Your task to perform on an android device: turn off notifications in google photos Image 0: 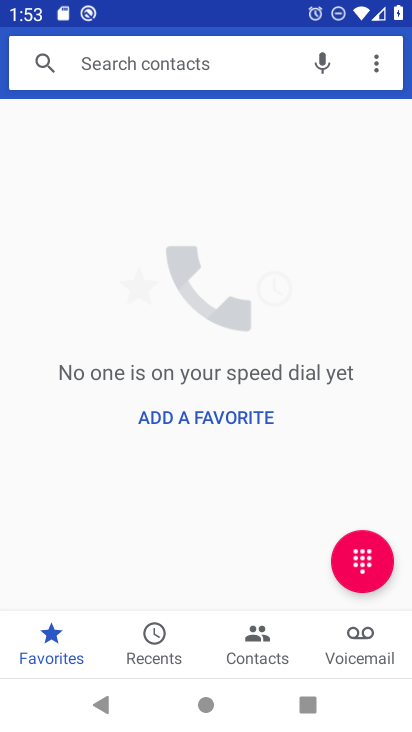
Step 0: press home button
Your task to perform on an android device: turn off notifications in google photos Image 1: 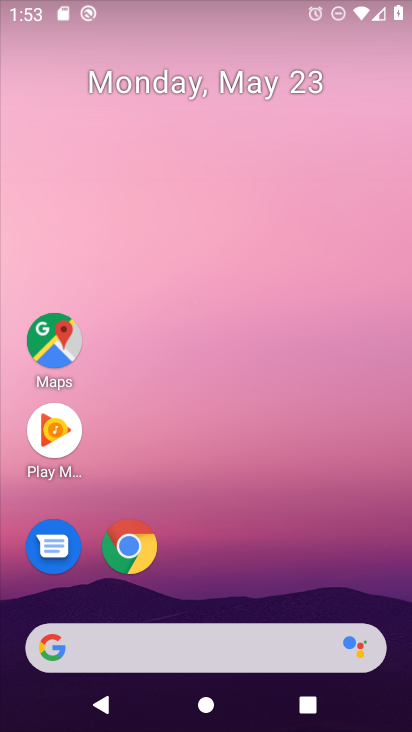
Step 1: drag from (245, 601) to (265, 45)
Your task to perform on an android device: turn off notifications in google photos Image 2: 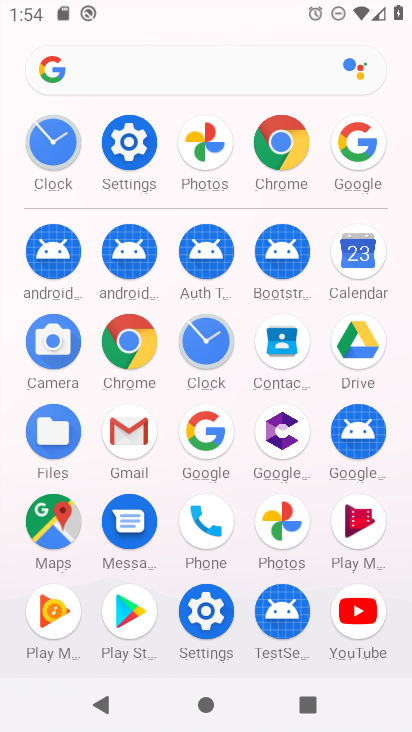
Step 2: click (293, 542)
Your task to perform on an android device: turn off notifications in google photos Image 3: 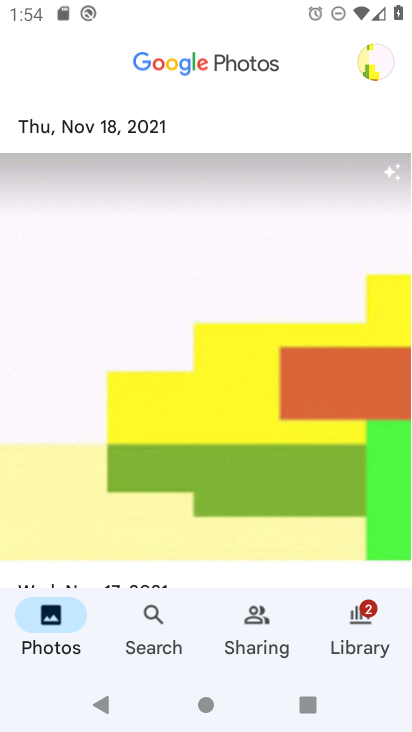
Step 3: click (382, 60)
Your task to perform on an android device: turn off notifications in google photos Image 4: 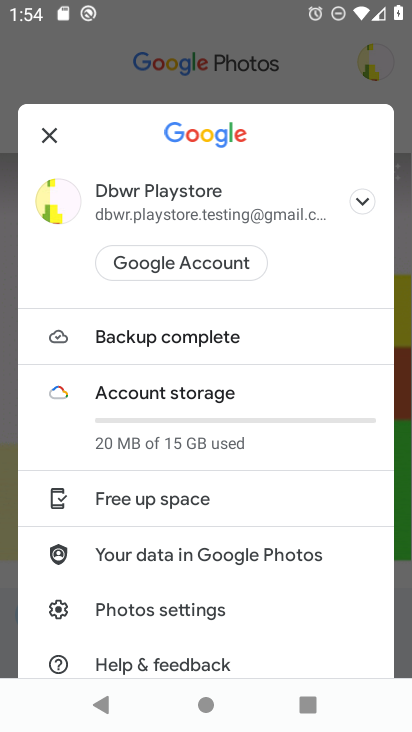
Step 4: click (169, 618)
Your task to perform on an android device: turn off notifications in google photos Image 5: 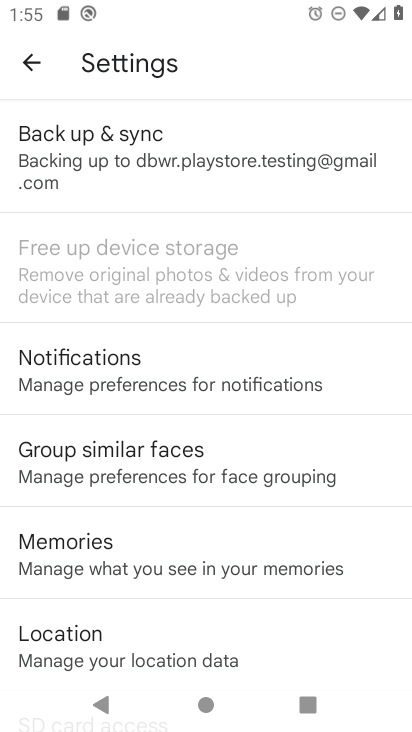
Step 5: click (168, 386)
Your task to perform on an android device: turn off notifications in google photos Image 6: 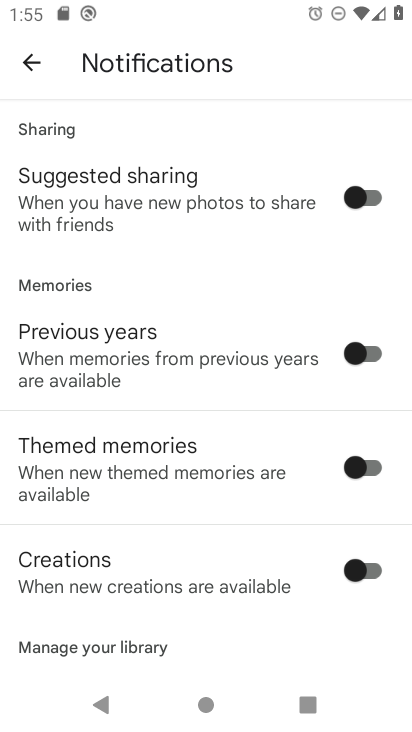
Step 6: drag from (212, 480) to (205, 32)
Your task to perform on an android device: turn off notifications in google photos Image 7: 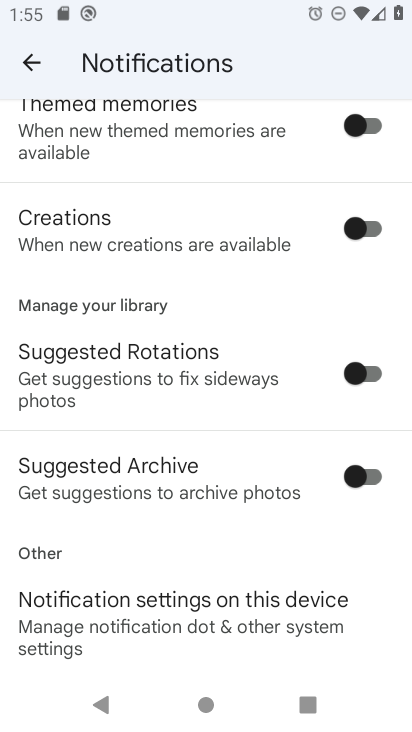
Step 7: drag from (185, 572) to (208, 398)
Your task to perform on an android device: turn off notifications in google photos Image 8: 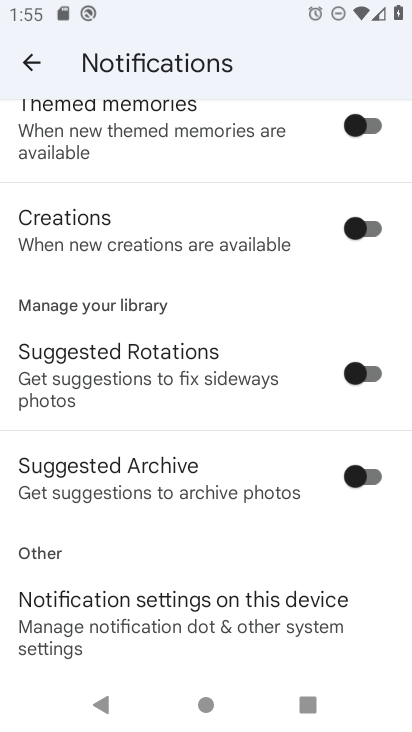
Step 8: click (299, 587)
Your task to perform on an android device: turn off notifications in google photos Image 9: 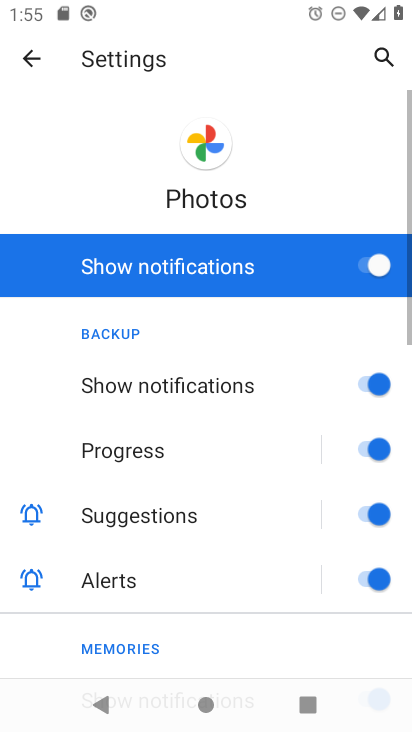
Step 9: click (366, 254)
Your task to perform on an android device: turn off notifications in google photos Image 10: 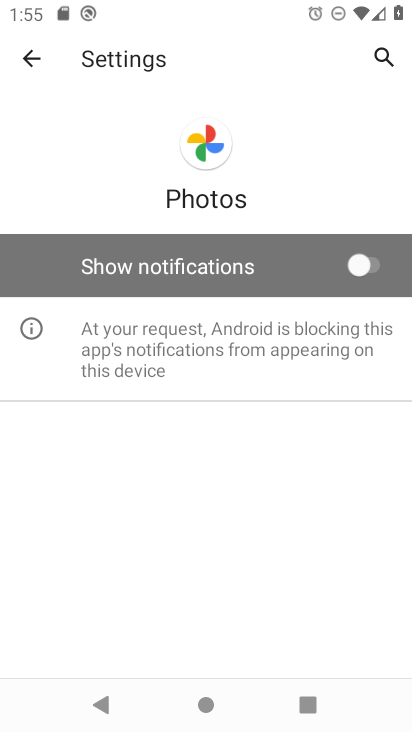
Step 10: task complete